Your task to perform on an android device: turn on data saver in the chrome app Image 0: 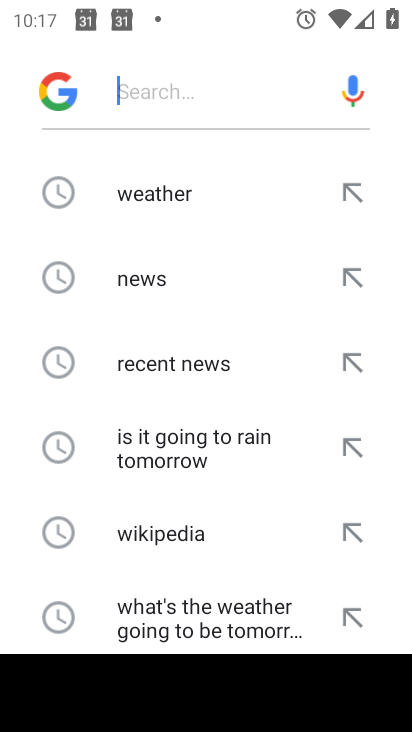
Step 0: press back button
Your task to perform on an android device: turn on data saver in the chrome app Image 1: 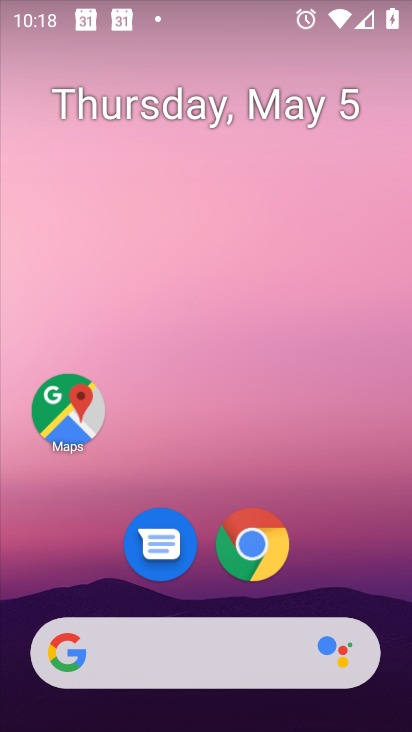
Step 1: click (277, 534)
Your task to perform on an android device: turn on data saver in the chrome app Image 2: 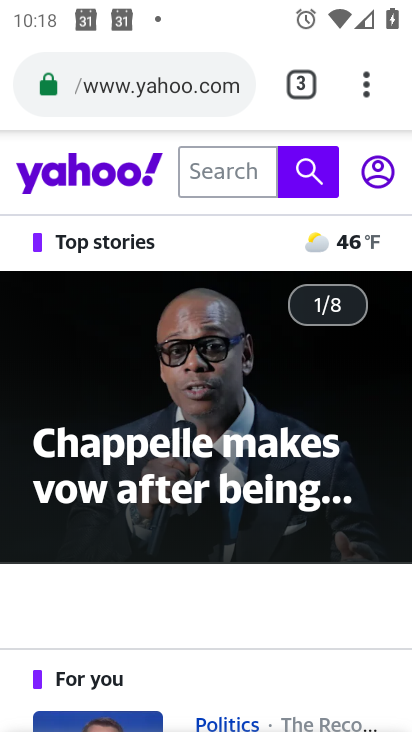
Step 2: click (378, 99)
Your task to perform on an android device: turn on data saver in the chrome app Image 3: 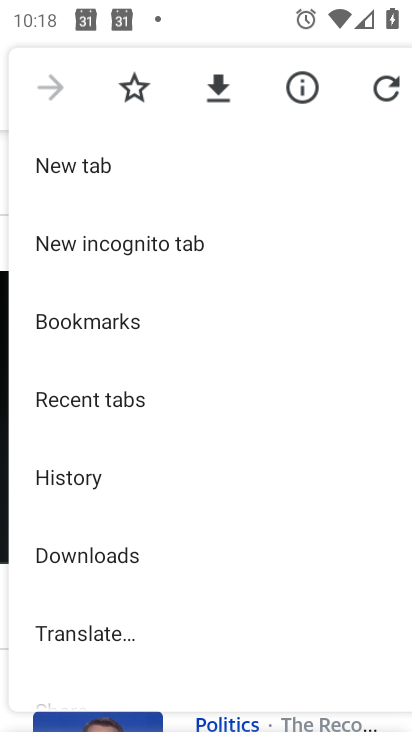
Step 3: drag from (195, 543) to (195, 347)
Your task to perform on an android device: turn on data saver in the chrome app Image 4: 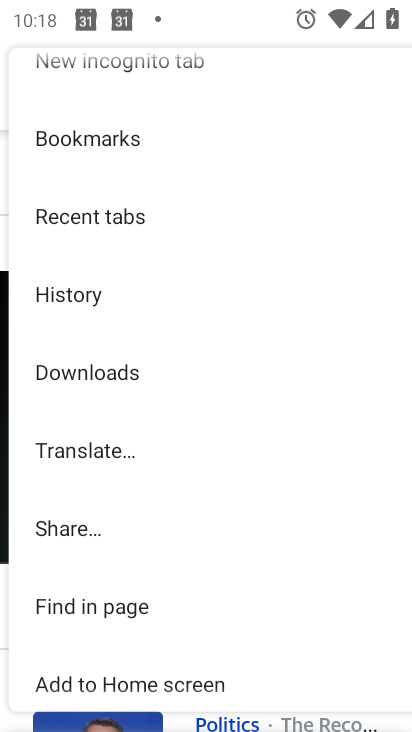
Step 4: drag from (203, 501) to (203, 334)
Your task to perform on an android device: turn on data saver in the chrome app Image 5: 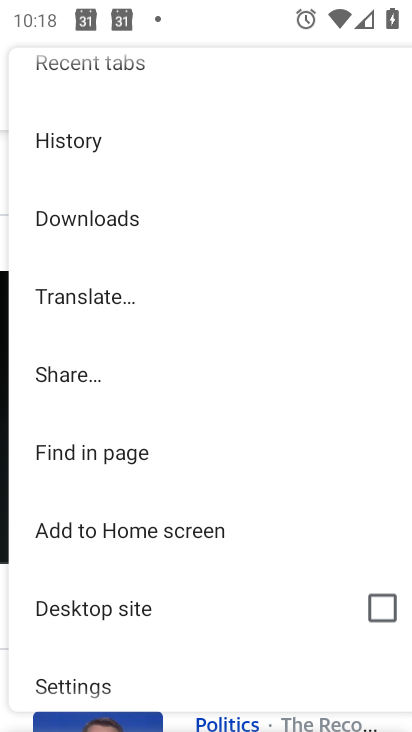
Step 5: click (136, 660)
Your task to perform on an android device: turn on data saver in the chrome app Image 6: 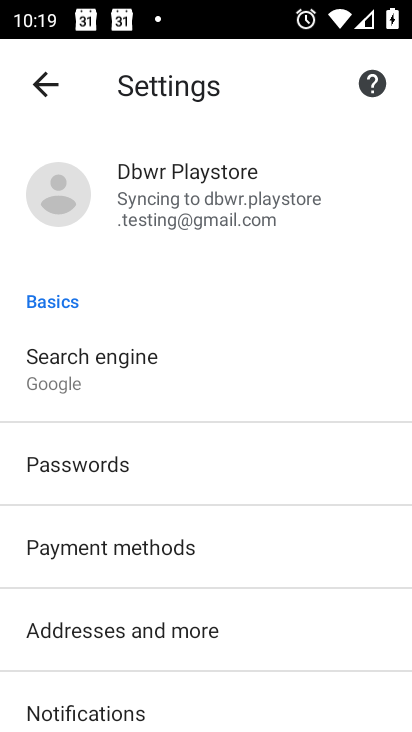
Step 6: drag from (294, 574) to (286, 444)
Your task to perform on an android device: turn on data saver in the chrome app Image 7: 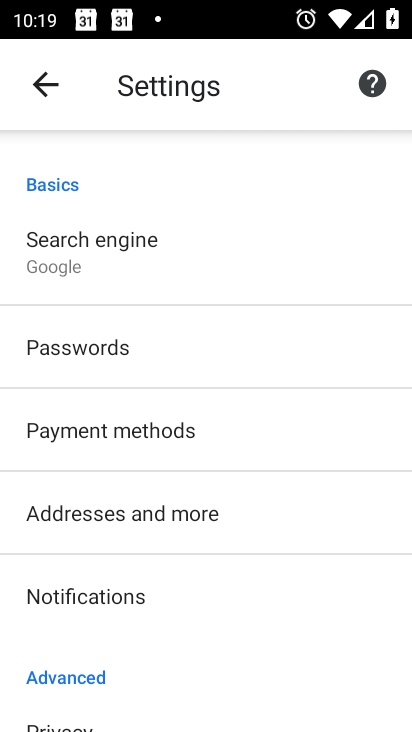
Step 7: drag from (172, 615) to (236, 267)
Your task to perform on an android device: turn on data saver in the chrome app Image 8: 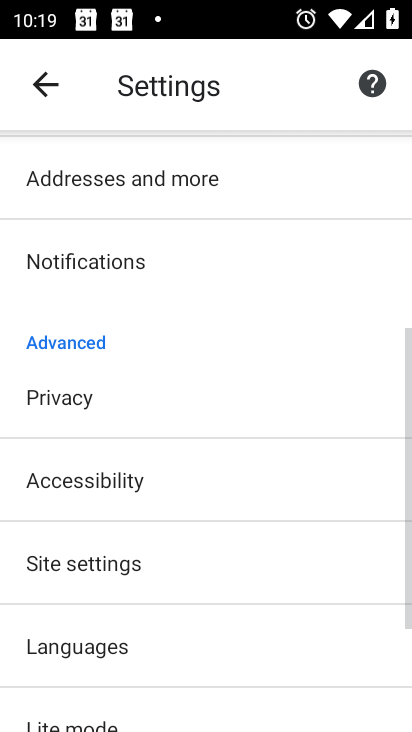
Step 8: drag from (217, 621) to (240, 446)
Your task to perform on an android device: turn on data saver in the chrome app Image 9: 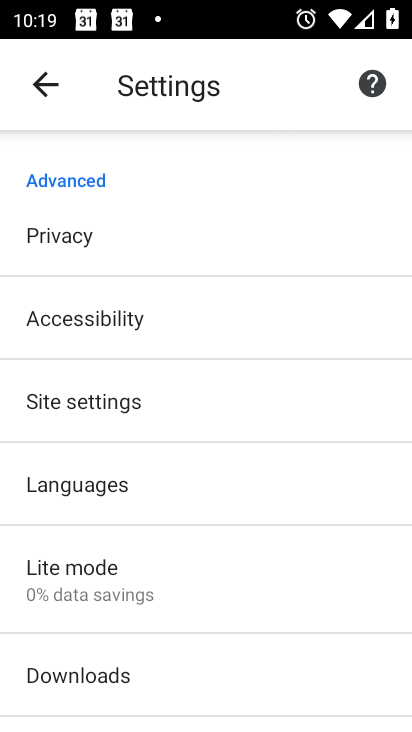
Step 9: click (187, 590)
Your task to perform on an android device: turn on data saver in the chrome app Image 10: 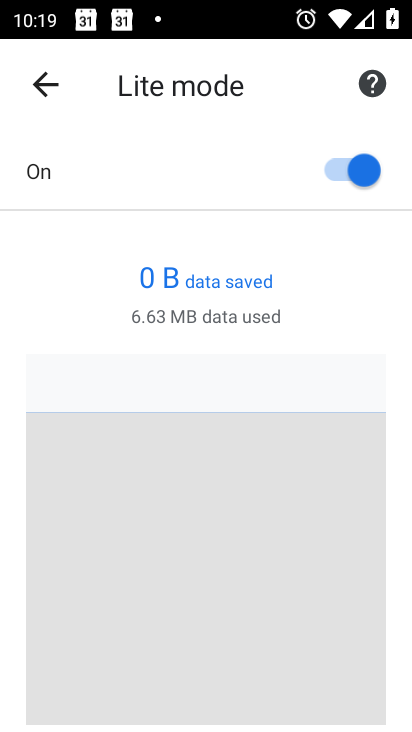
Step 10: task complete